Your task to perform on an android device: visit the assistant section in the google photos Image 0: 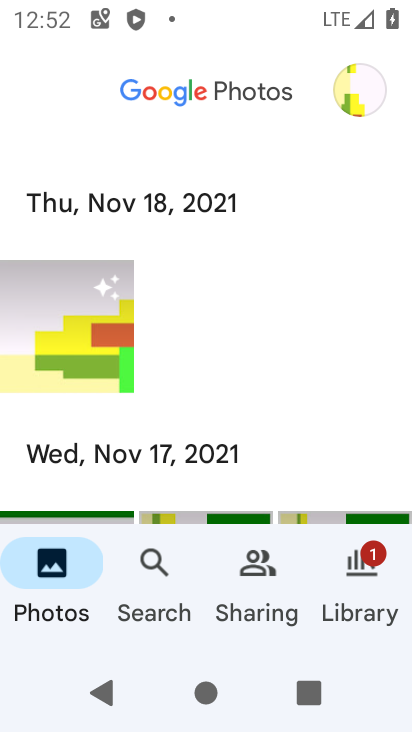
Step 0: press home button
Your task to perform on an android device: visit the assistant section in the google photos Image 1: 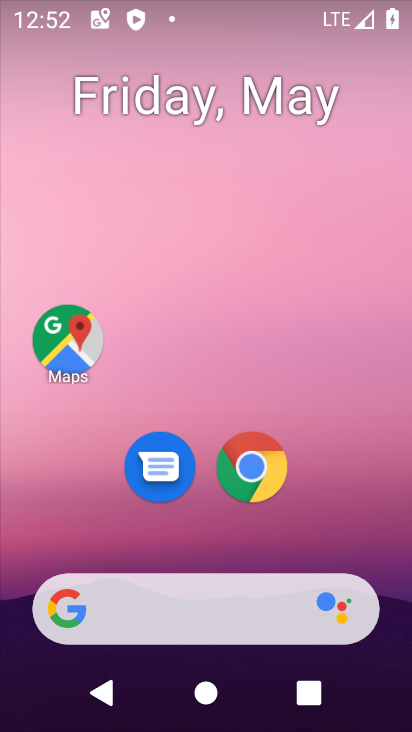
Step 1: drag from (333, 511) to (300, 165)
Your task to perform on an android device: visit the assistant section in the google photos Image 2: 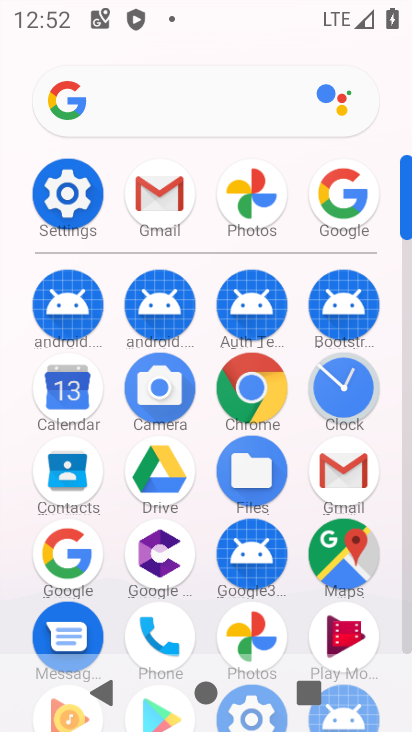
Step 2: click (254, 196)
Your task to perform on an android device: visit the assistant section in the google photos Image 3: 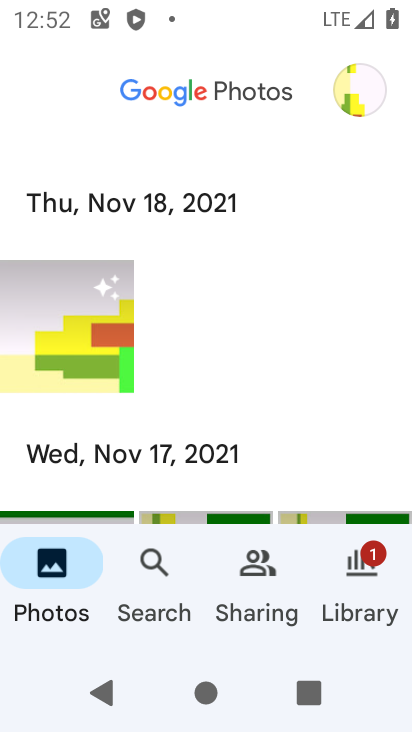
Step 3: click (272, 571)
Your task to perform on an android device: visit the assistant section in the google photos Image 4: 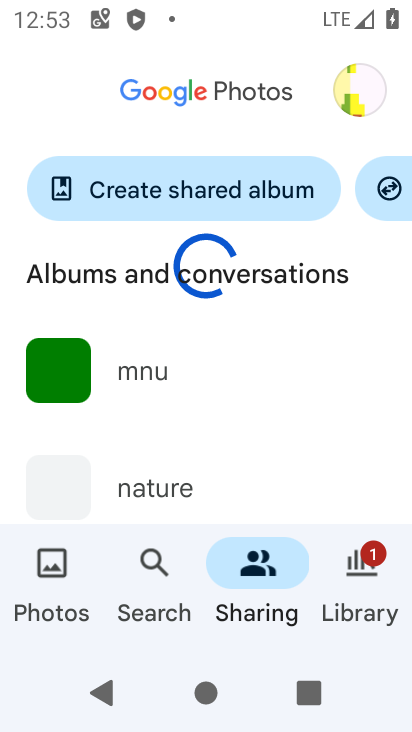
Step 4: drag from (250, 456) to (262, 290)
Your task to perform on an android device: visit the assistant section in the google photos Image 5: 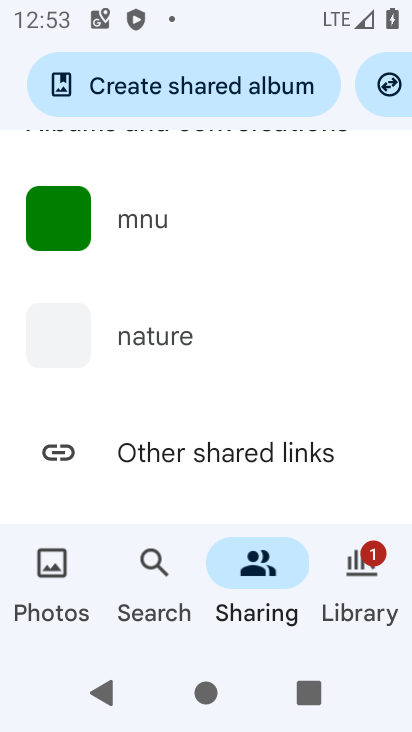
Step 5: drag from (267, 431) to (297, 268)
Your task to perform on an android device: visit the assistant section in the google photos Image 6: 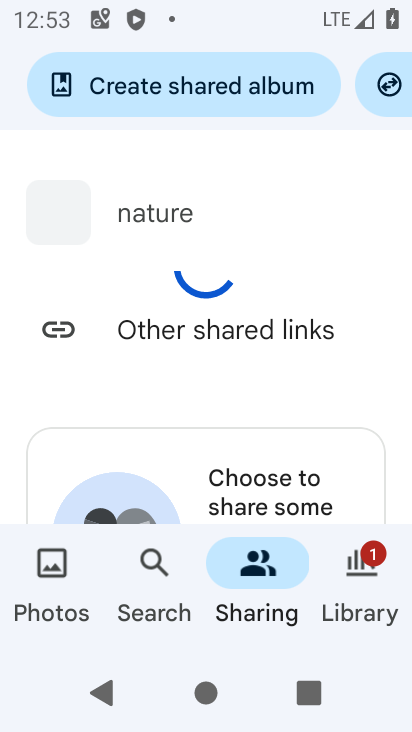
Step 6: drag from (170, 485) to (212, 282)
Your task to perform on an android device: visit the assistant section in the google photos Image 7: 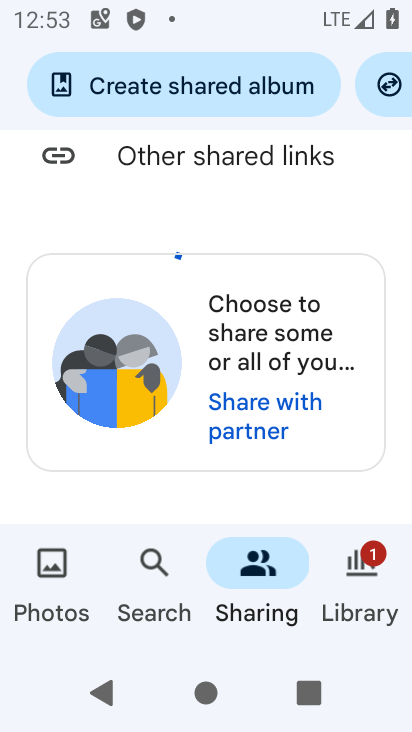
Step 7: drag from (248, 453) to (302, 187)
Your task to perform on an android device: visit the assistant section in the google photos Image 8: 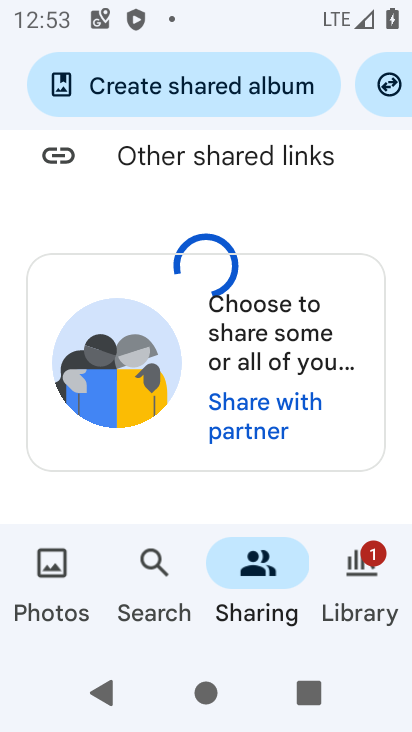
Step 8: click (150, 572)
Your task to perform on an android device: visit the assistant section in the google photos Image 9: 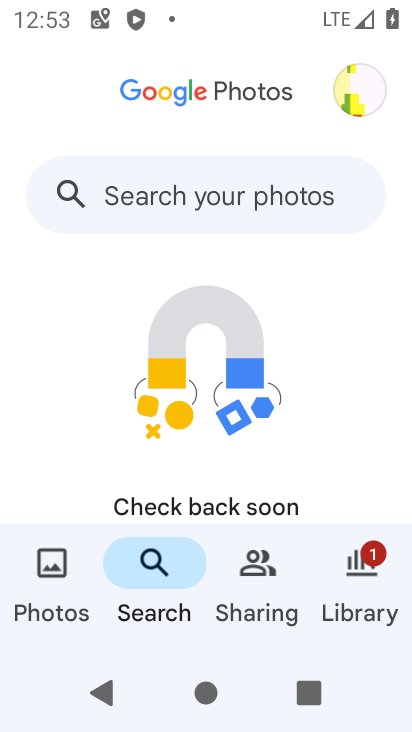
Step 9: drag from (212, 481) to (297, 349)
Your task to perform on an android device: visit the assistant section in the google photos Image 10: 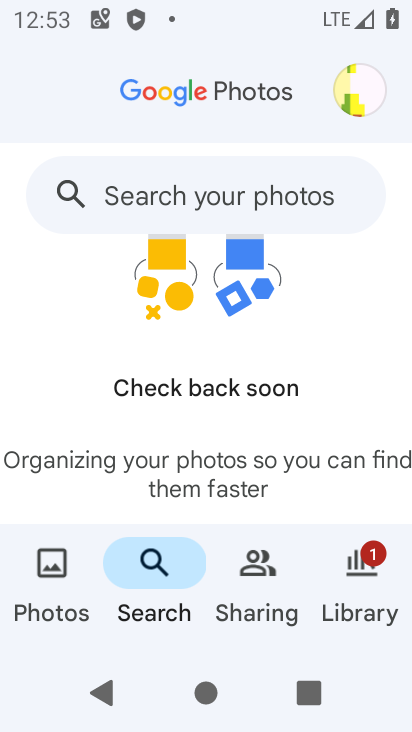
Step 10: drag from (247, 451) to (290, 327)
Your task to perform on an android device: visit the assistant section in the google photos Image 11: 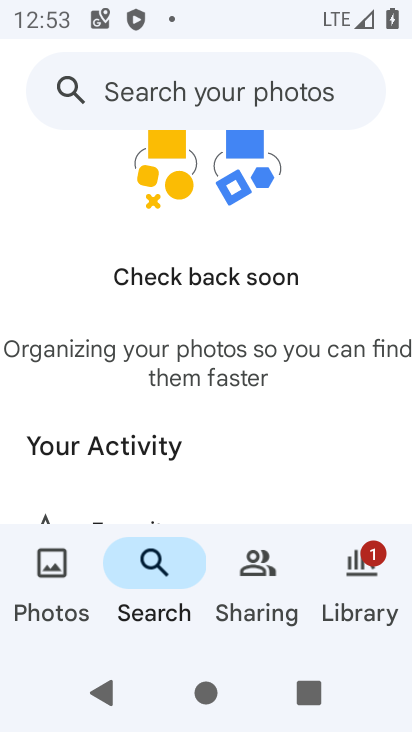
Step 11: click (55, 563)
Your task to perform on an android device: visit the assistant section in the google photos Image 12: 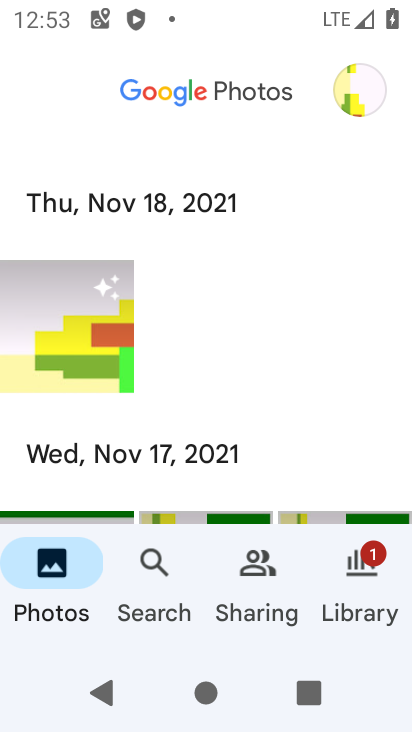
Step 12: task complete